Your task to perform on an android device: toggle sleep mode Image 0: 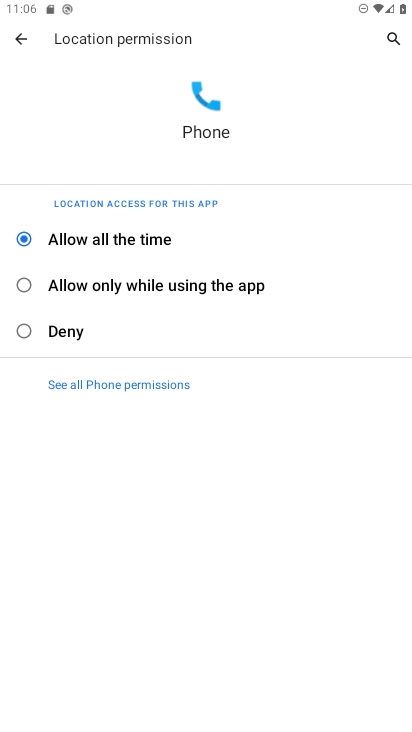
Step 0: press back button
Your task to perform on an android device: toggle sleep mode Image 1: 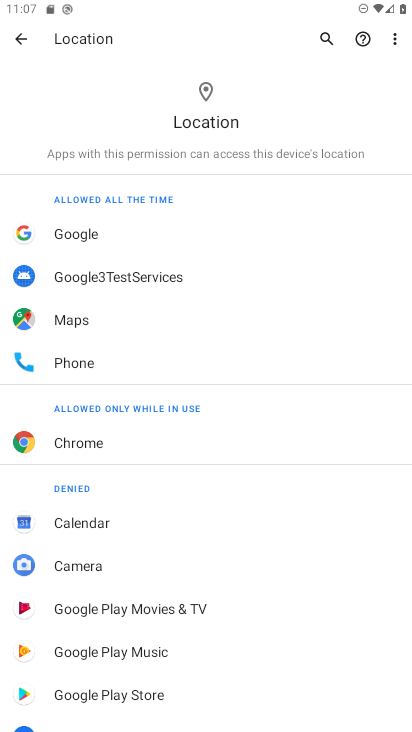
Step 1: press back button
Your task to perform on an android device: toggle sleep mode Image 2: 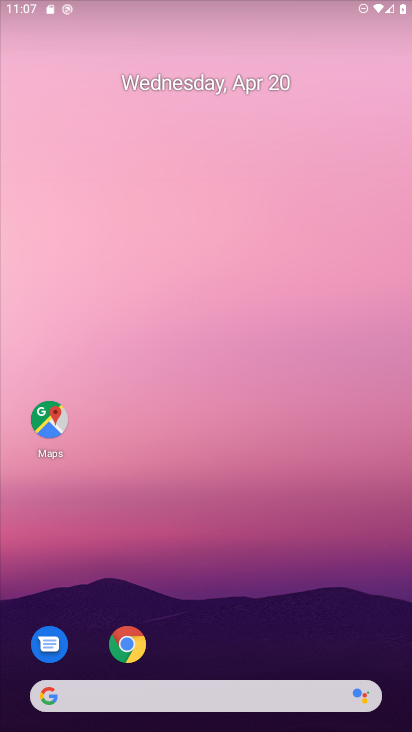
Step 2: drag from (321, 623) to (239, 103)
Your task to perform on an android device: toggle sleep mode Image 3: 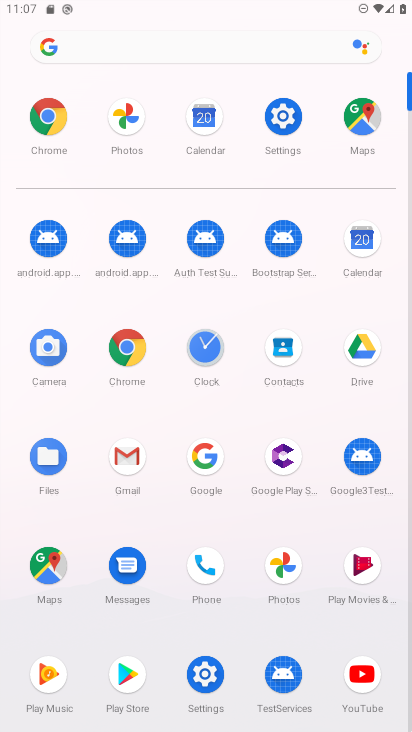
Step 3: click (280, 119)
Your task to perform on an android device: toggle sleep mode Image 4: 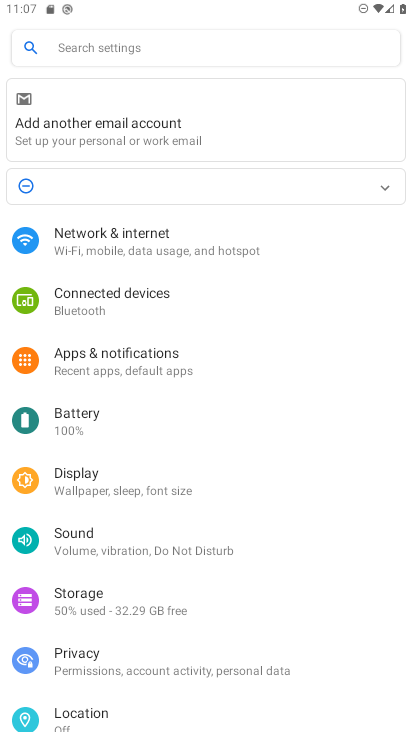
Step 4: task complete